Your task to perform on an android device: Go to notification settings Image 0: 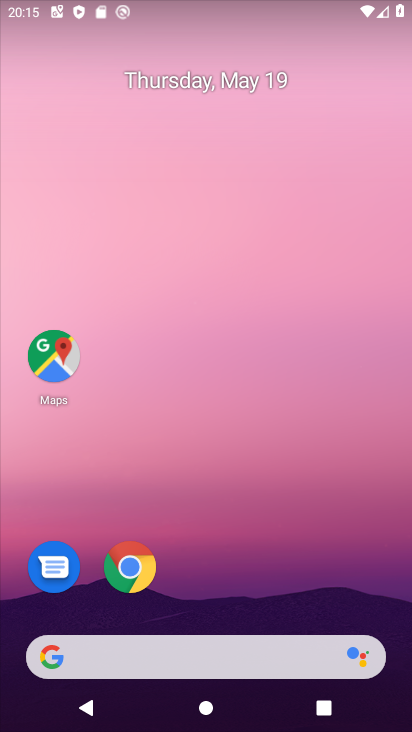
Step 0: drag from (196, 593) to (265, 89)
Your task to perform on an android device: Go to notification settings Image 1: 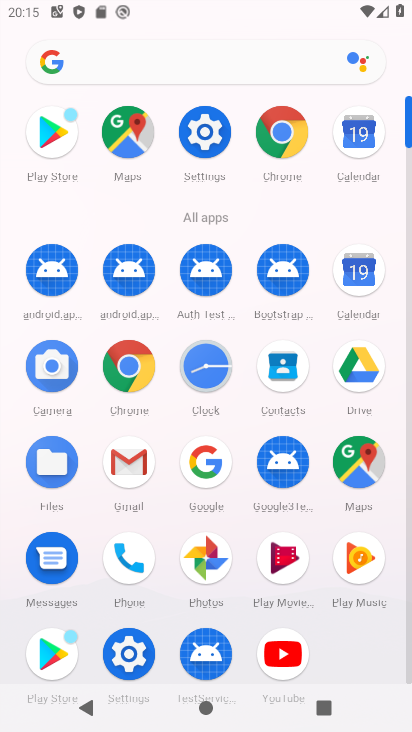
Step 1: click (130, 657)
Your task to perform on an android device: Go to notification settings Image 2: 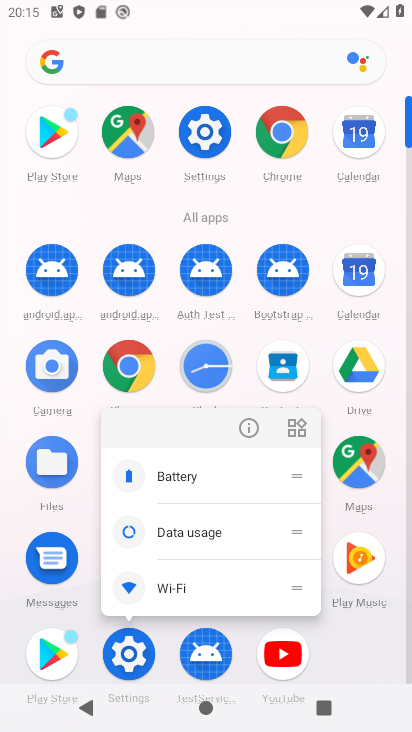
Step 2: click (117, 647)
Your task to perform on an android device: Go to notification settings Image 3: 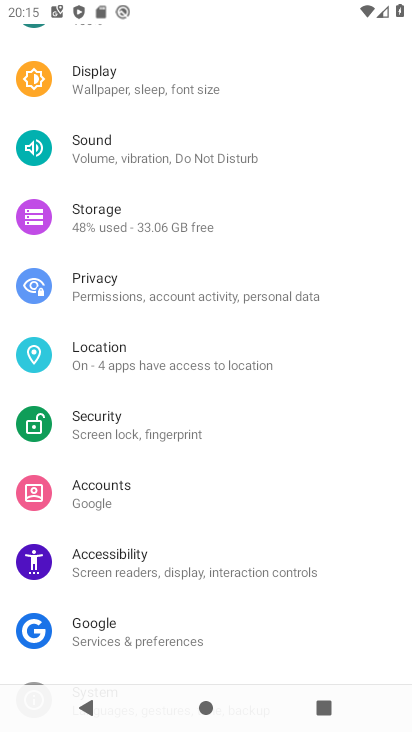
Step 3: drag from (199, 266) to (158, 730)
Your task to perform on an android device: Go to notification settings Image 4: 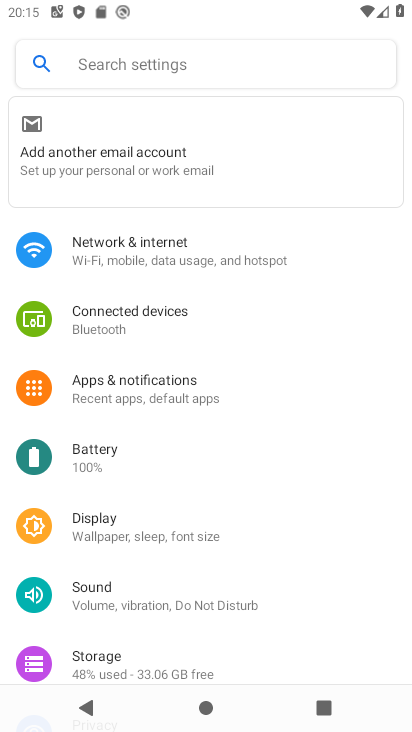
Step 4: click (156, 377)
Your task to perform on an android device: Go to notification settings Image 5: 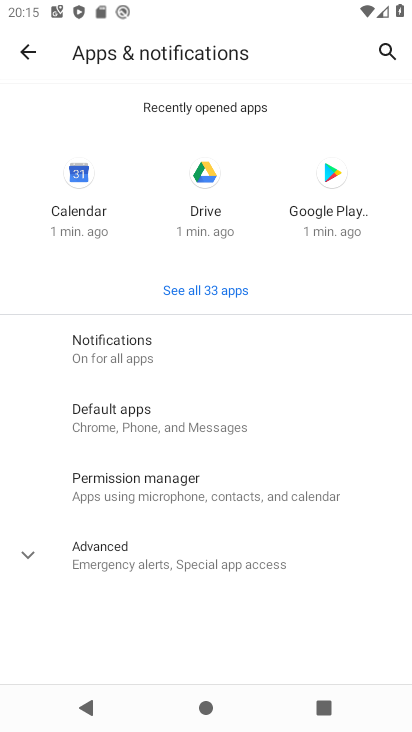
Step 5: click (162, 346)
Your task to perform on an android device: Go to notification settings Image 6: 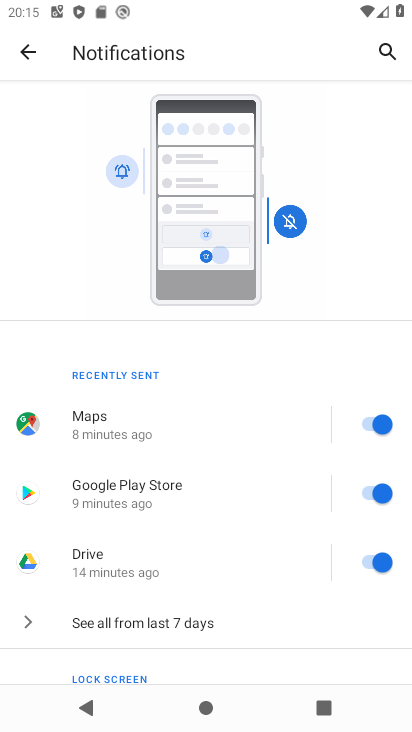
Step 6: task complete